Your task to perform on an android device: Open Maps and search for coffee Image 0: 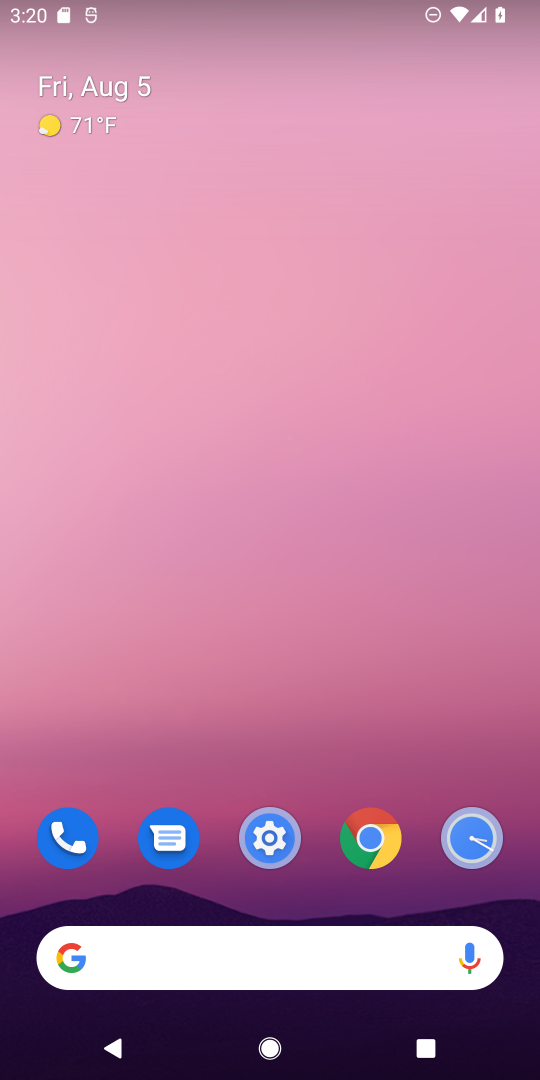
Step 0: drag from (422, 750) to (252, 0)
Your task to perform on an android device: Open Maps and search for coffee Image 1: 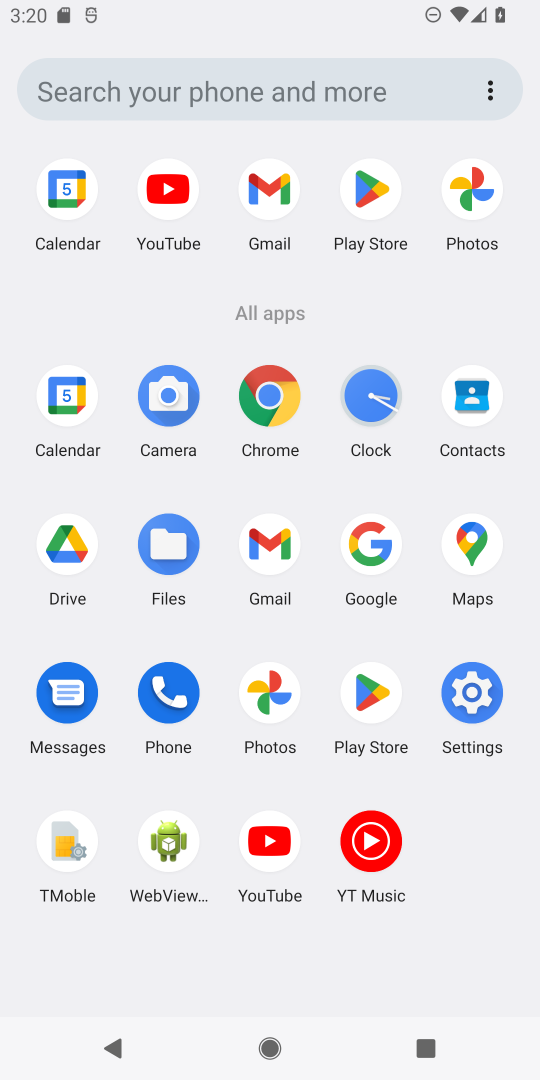
Step 1: click (478, 525)
Your task to perform on an android device: Open Maps and search for coffee Image 2: 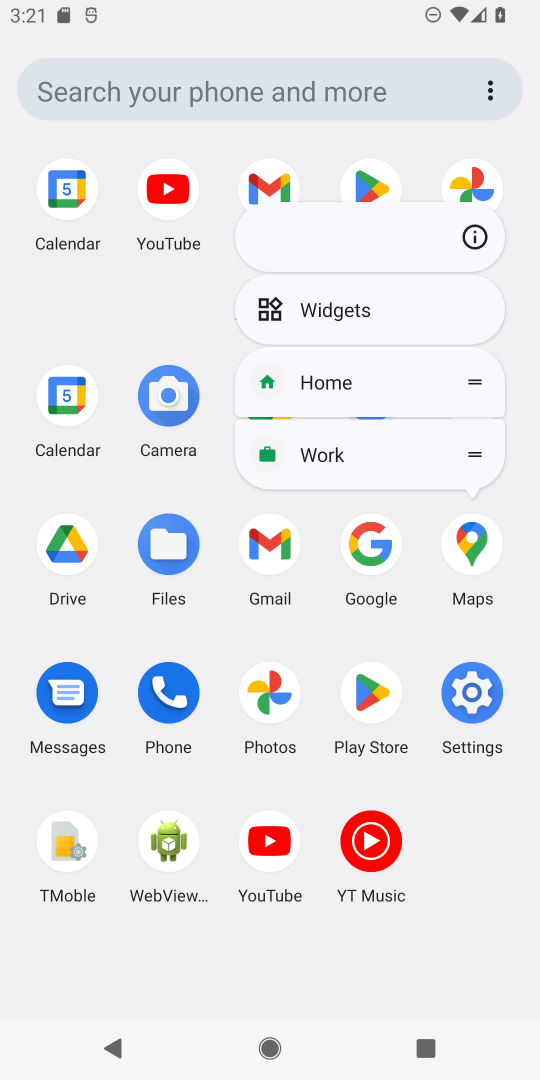
Step 2: click (477, 545)
Your task to perform on an android device: Open Maps and search for coffee Image 3: 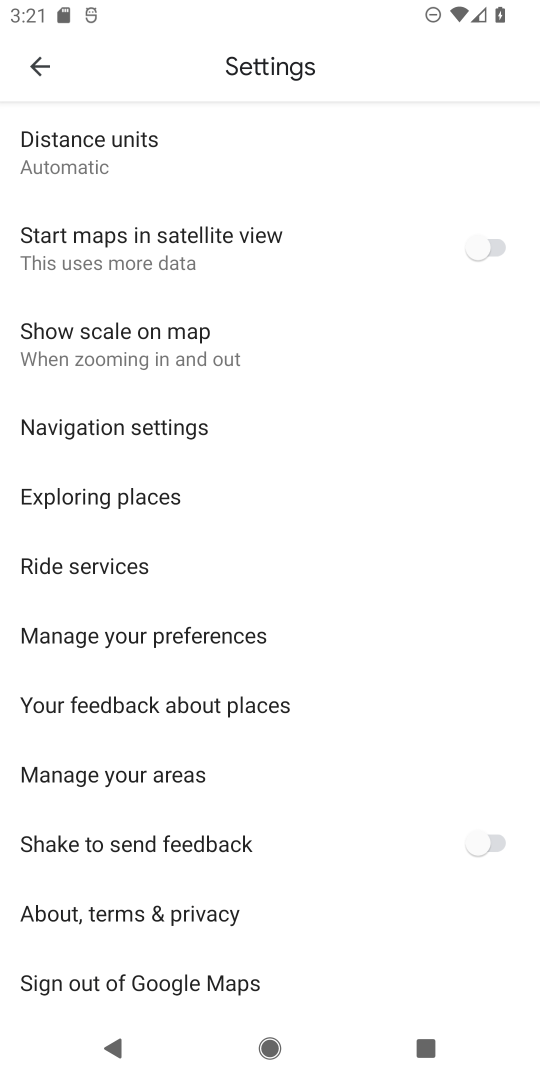
Step 3: click (30, 58)
Your task to perform on an android device: Open Maps and search for coffee Image 4: 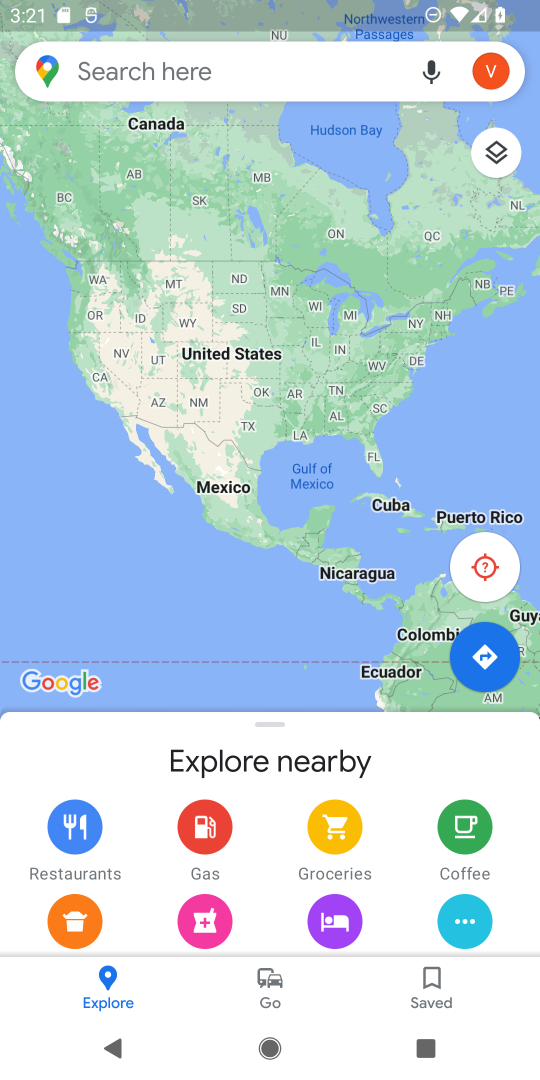
Step 4: click (193, 75)
Your task to perform on an android device: Open Maps and search for coffee Image 5: 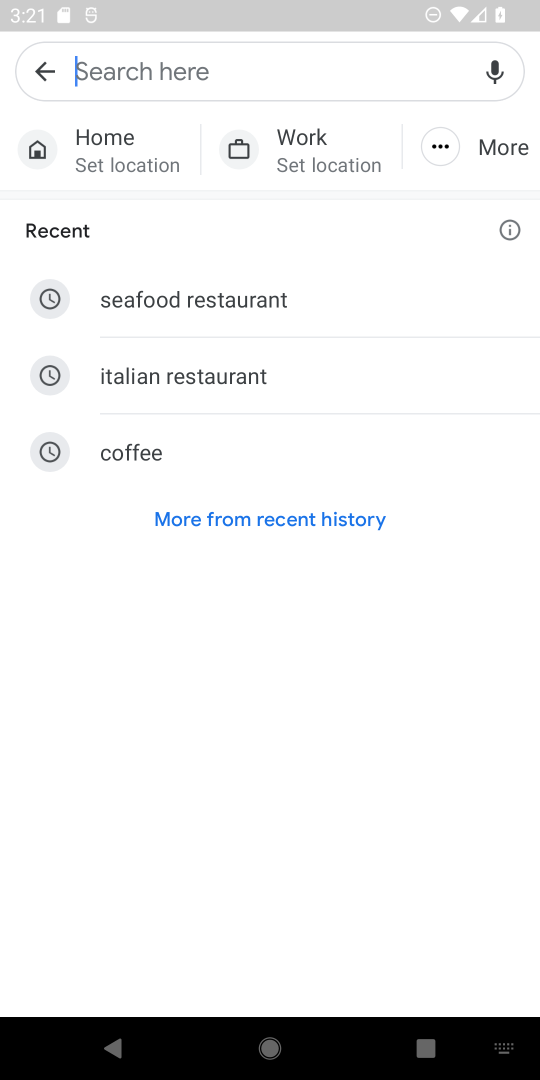
Step 5: click (175, 442)
Your task to perform on an android device: Open Maps and search for coffee Image 6: 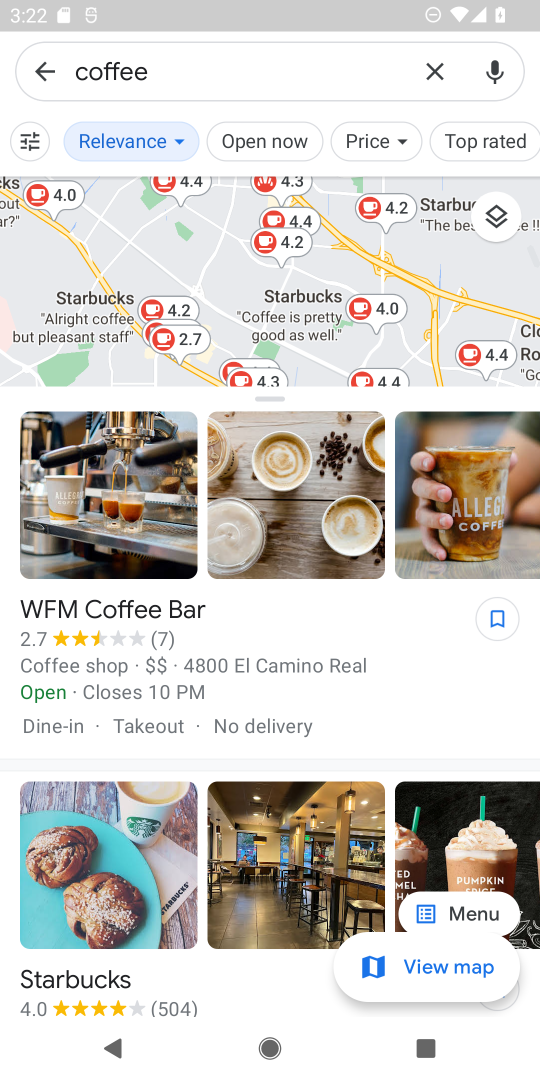
Step 6: task complete